Your task to perform on an android device: Add "logitech g502" to the cart on newegg.com Image 0: 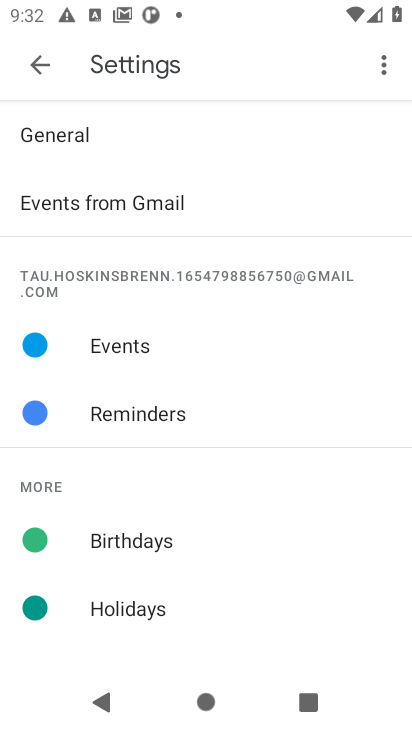
Step 0: press home button
Your task to perform on an android device: Add "logitech g502" to the cart on newegg.com Image 1: 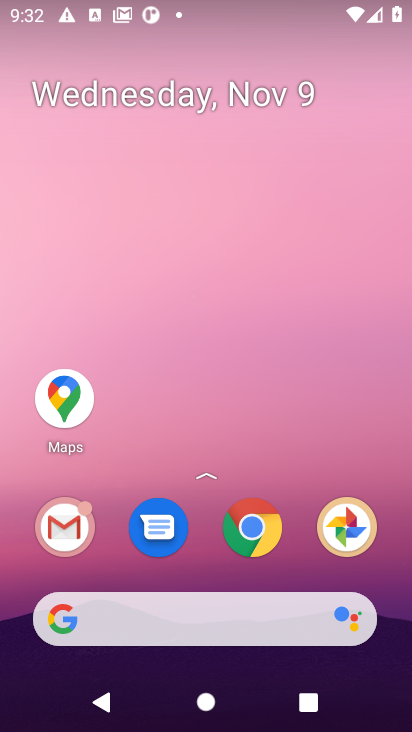
Step 1: click (262, 533)
Your task to perform on an android device: Add "logitech g502" to the cart on newegg.com Image 2: 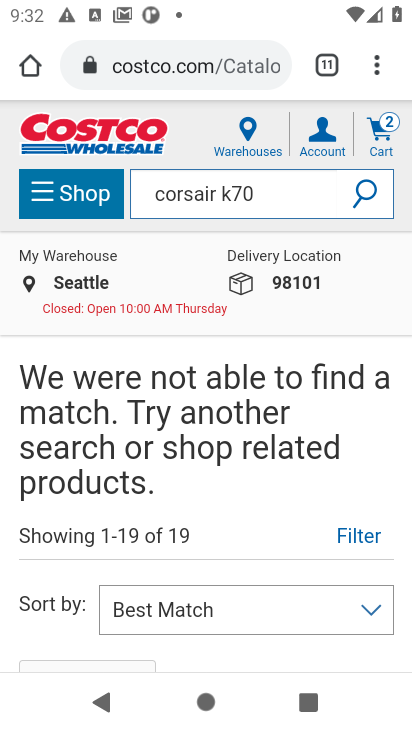
Step 2: click (169, 70)
Your task to perform on an android device: Add "logitech g502" to the cart on newegg.com Image 3: 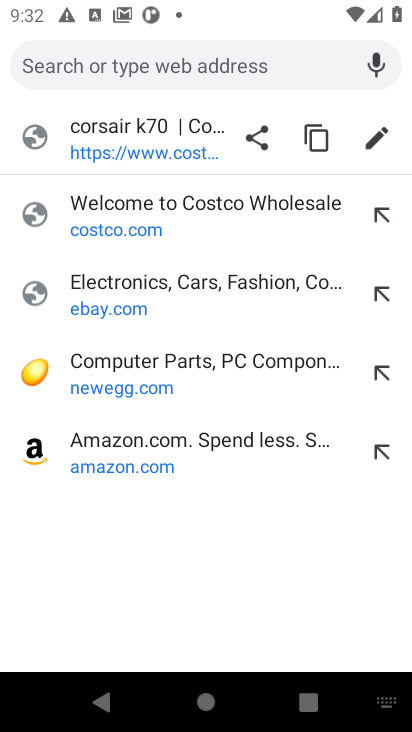
Step 3: click (97, 386)
Your task to perform on an android device: Add "logitech g502" to the cart on newegg.com Image 4: 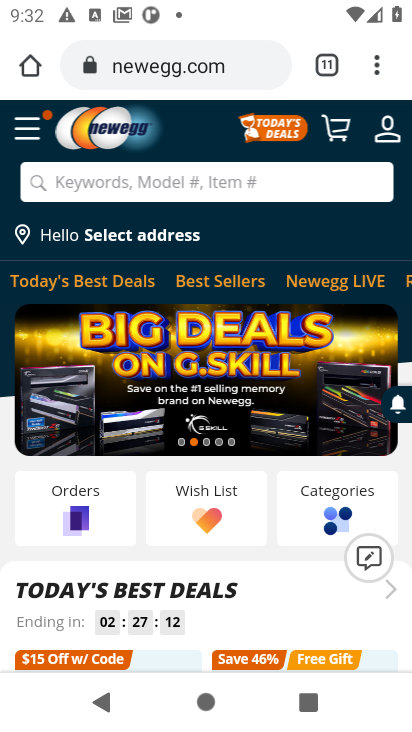
Step 4: click (132, 178)
Your task to perform on an android device: Add "logitech g502" to the cart on newegg.com Image 5: 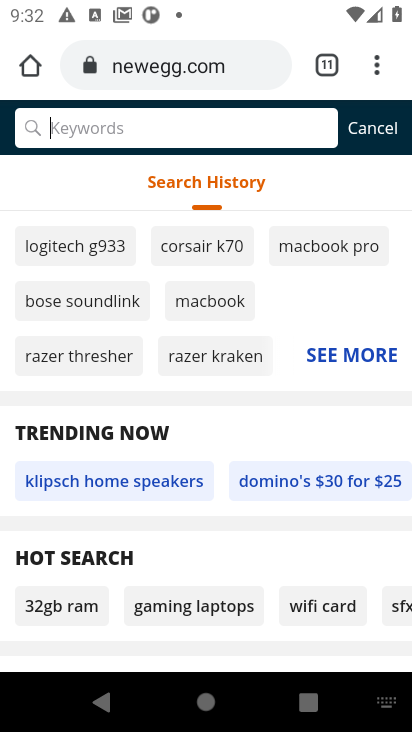
Step 5: type "logitech g502"
Your task to perform on an android device: Add "logitech g502" to the cart on newegg.com Image 6: 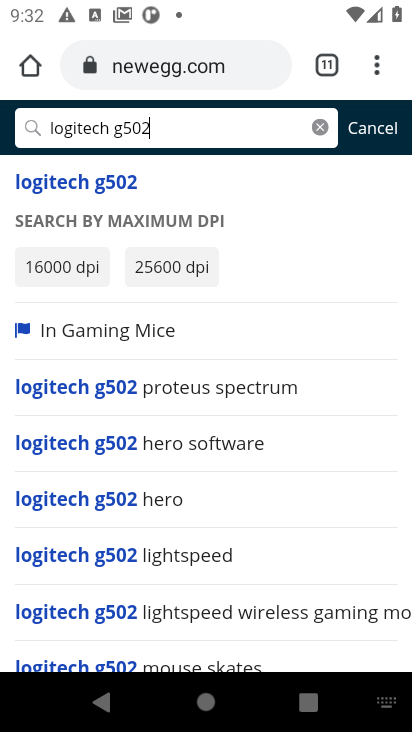
Step 6: click (63, 189)
Your task to perform on an android device: Add "logitech g502" to the cart on newegg.com Image 7: 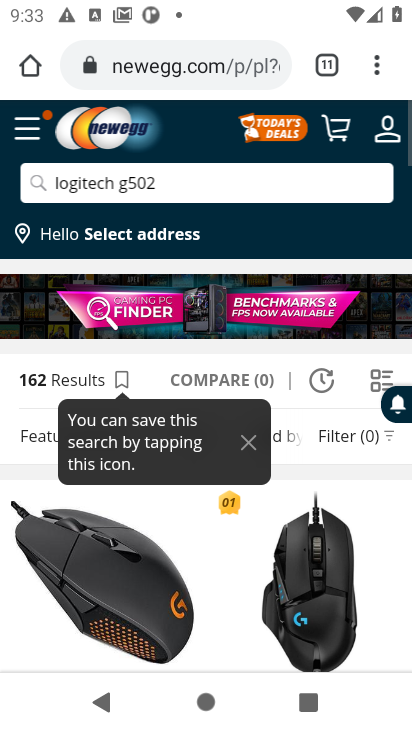
Step 7: drag from (163, 470) to (151, 166)
Your task to perform on an android device: Add "logitech g502" to the cart on newegg.com Image 8: 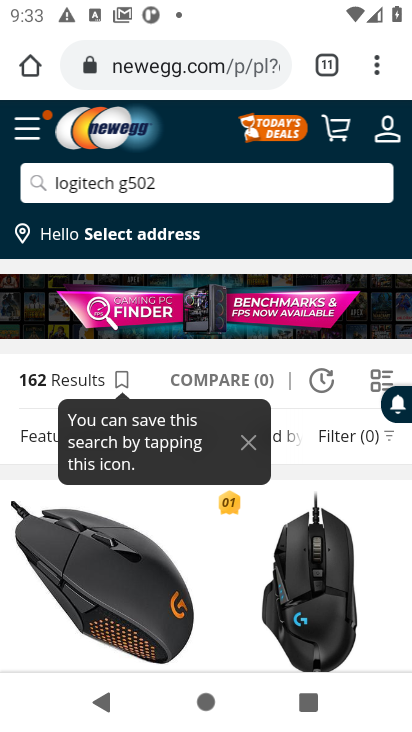
Step 8: drag from (206, 519) to (175, 244)
Your task to perform on an android device: Add "logitech g502" to the cart on newegg.com Image 9: 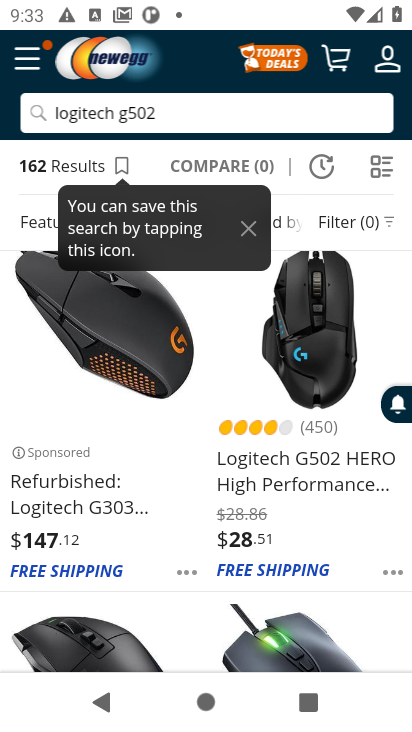
Step 9: click (309, 475)
Your task to perform on an android device: Add "logitech g502" to the cart on newegg.com Image 10: 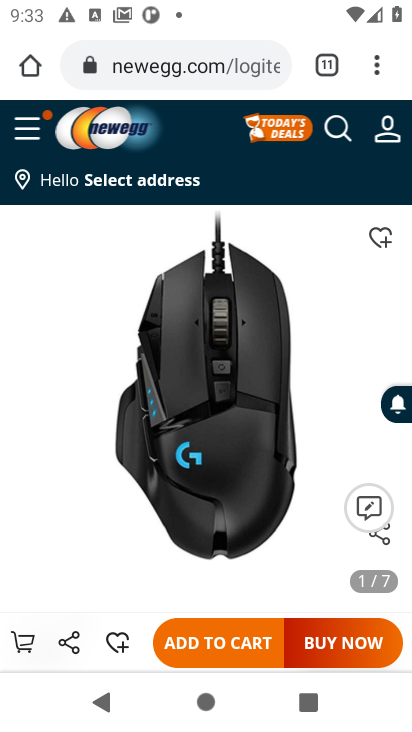
Step 10: click (195, 647)
Your task to perform on an android device: Add "logitech g502" to the cart on newegg.com Image 11: 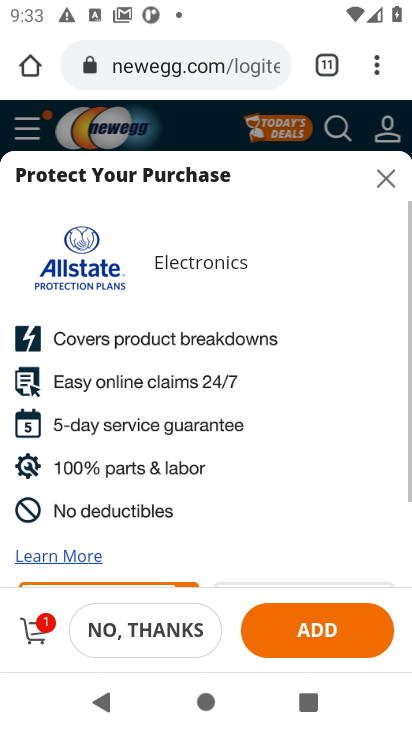
Step 11: task complete